Your task to perform on an android device: Open Android settings Image 0: 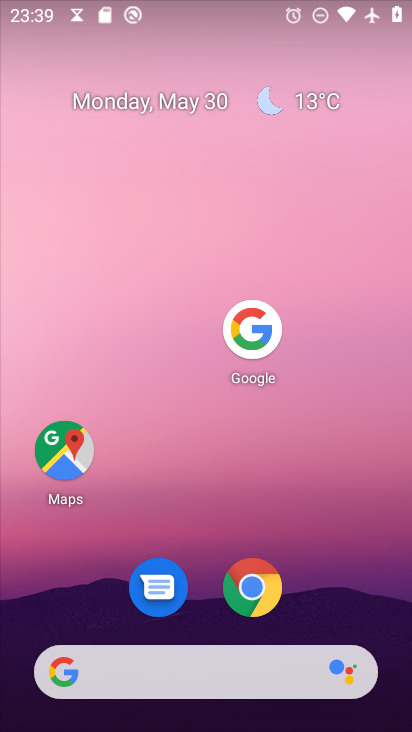
Step 0: press home button
Your task to perform on an android device: Open Android settings Image 1: 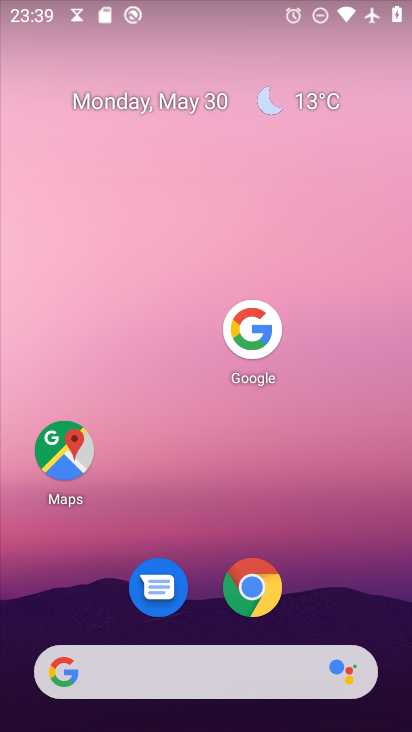
Step 1: drag from (225, 507) to (312, 62)
Your task to perform on an android device: Open Android settings Image 2: 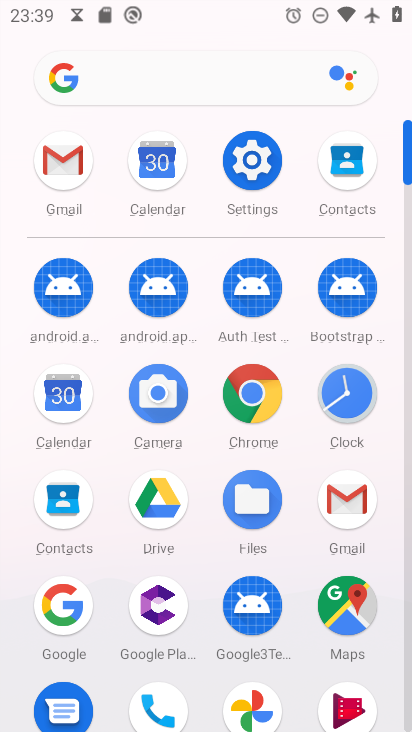
Step 2: click (256, 165)
Your task to perform on an android device: Open Android settings Image 3: 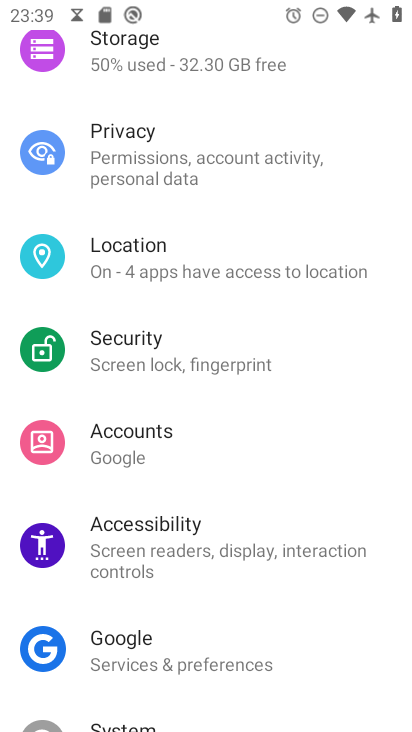
Step 3: task complete